Your task to perform on an android device: turn on sleep mode Image 0: 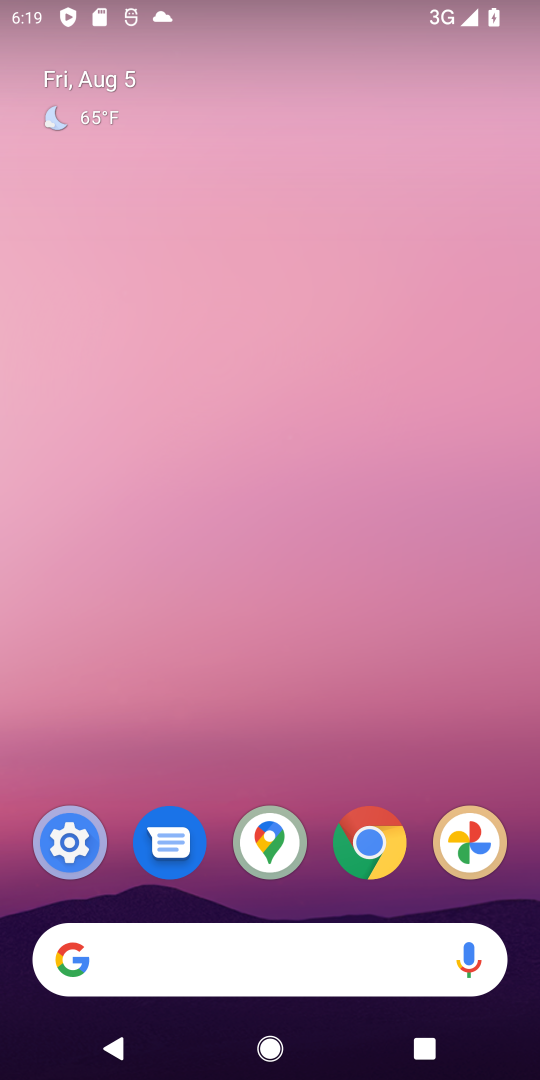
Step 0: drag from (135, 422) to (191, 224)
Your task to perform on an android device: turn on sleep mode Image 1: 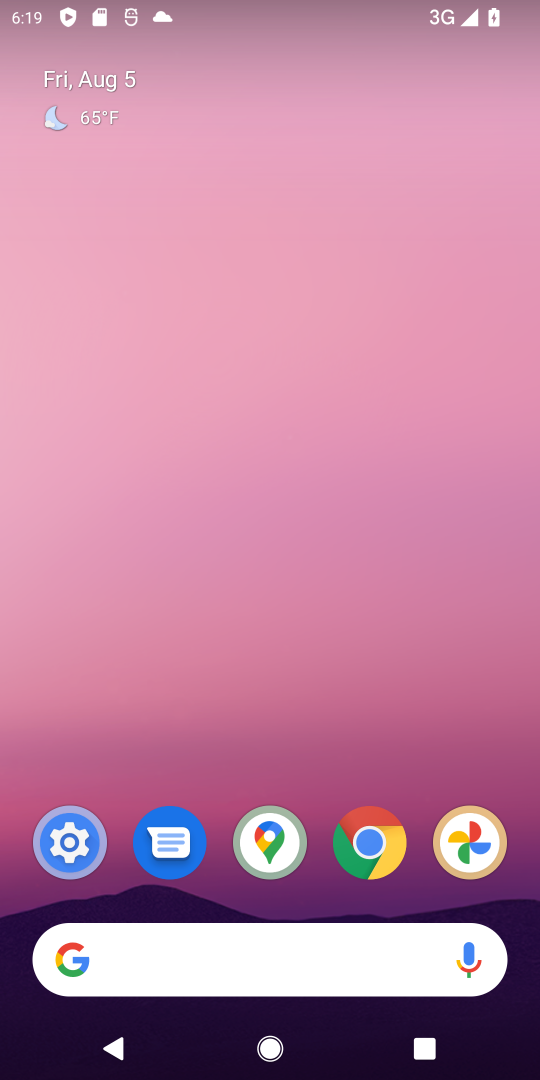
Step 1: drag from (107, 1078) to (344, 124)
Your task to perform on an android device: turn on sleep mode Image 2: 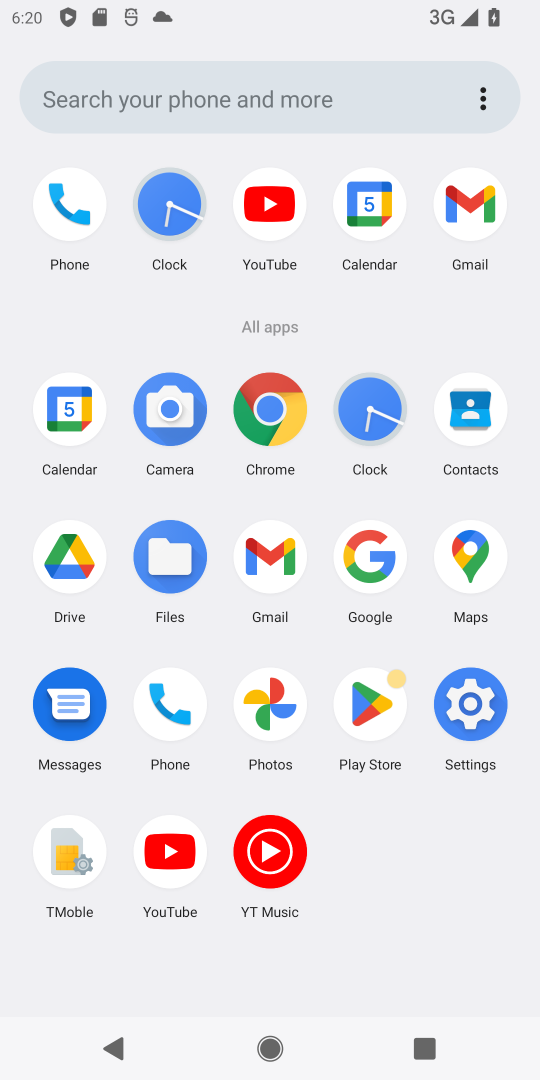
Step 2: click (413, 54)
Your task to perform on an android device: turn on sleep mode Image 3: 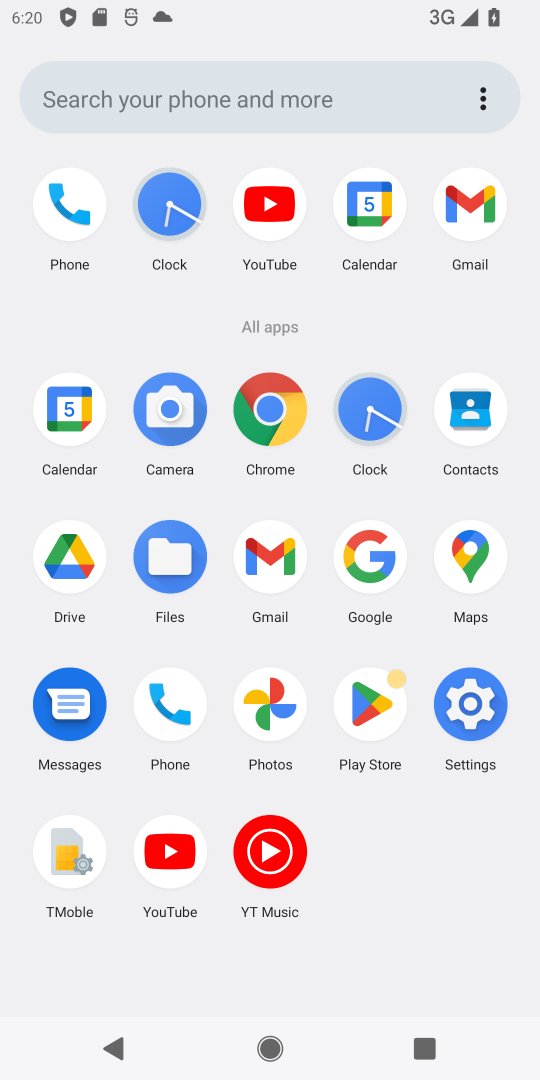
Step 3: click (460, 728)
Your task to perform on an android device: turn on sleep mode Image 4: 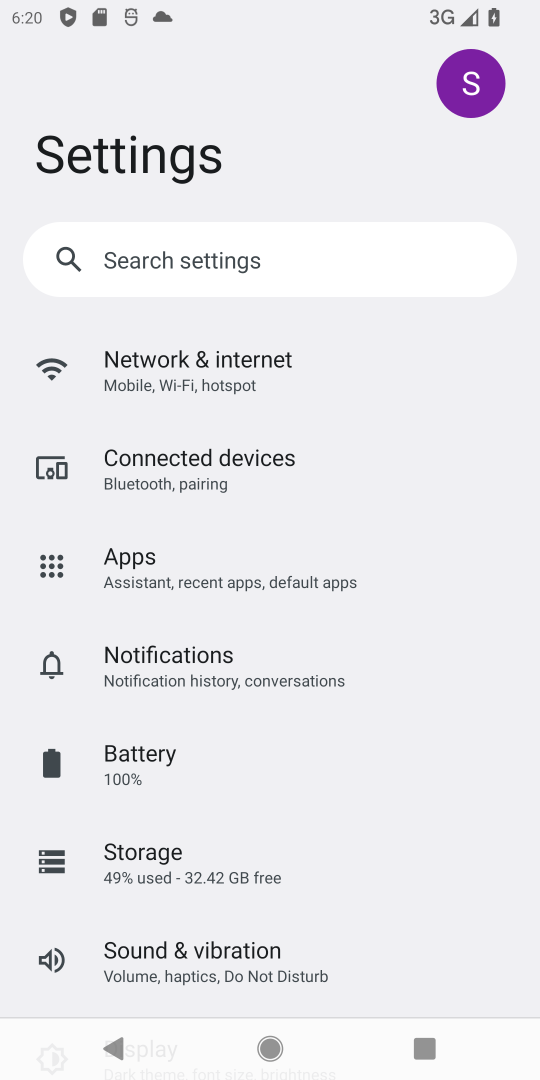
Step 4: task complete